Your task to perform on an android device: empty trash in google photos Image 0: 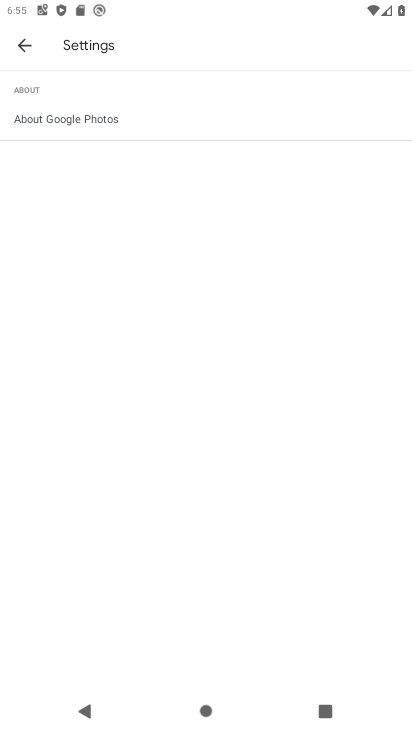
Step 0: press home button
Your task to perform on an android device: empty trash in google photos Image 1: 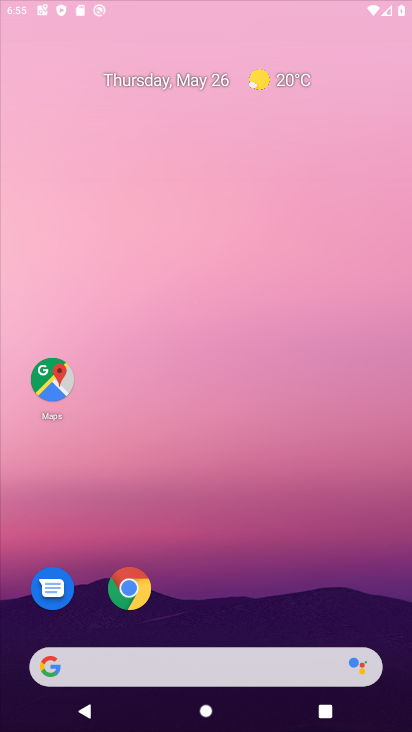
Step 1: drag from (381, 630) to (235, 64)
Your task to perform on an android device: empty trash in google photos Image 2: 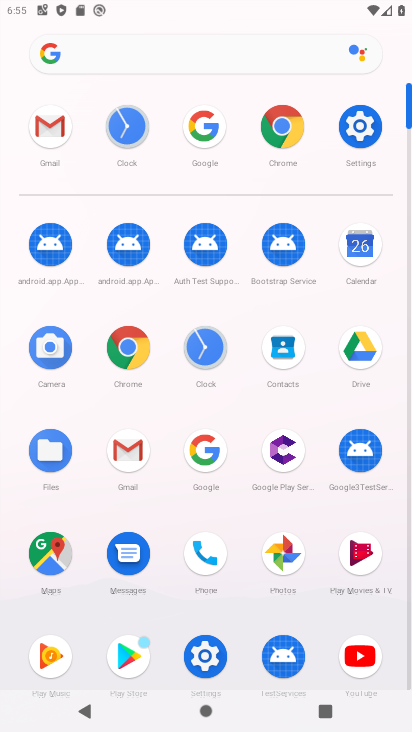
Step 2: click (278, 575)
Your task to perform on an android device: empty trash in google photos Image 3: 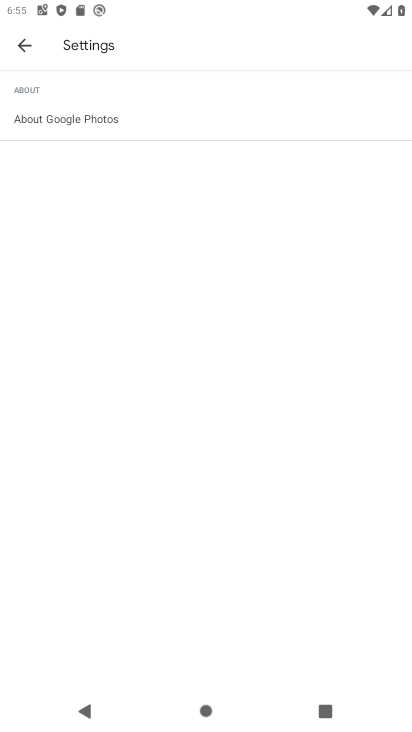
Step 3: press back button
Your task to perform on an android device: empty trash in google photos Image 4: 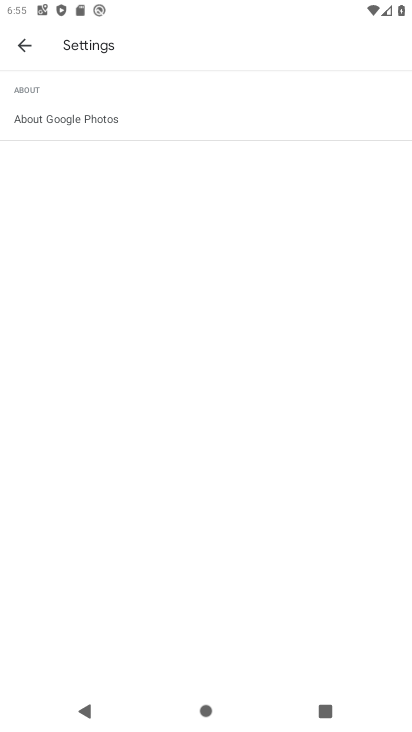
Step 4: press back button
Your task to perform on an android device: empty trash in google photos Image 5: 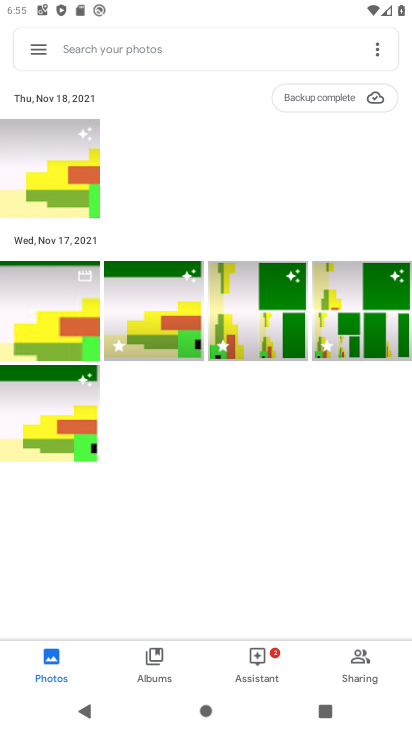
Step 5: click (37, 44)
Your task to perform on an android device: empty trash in google photos Image 6: 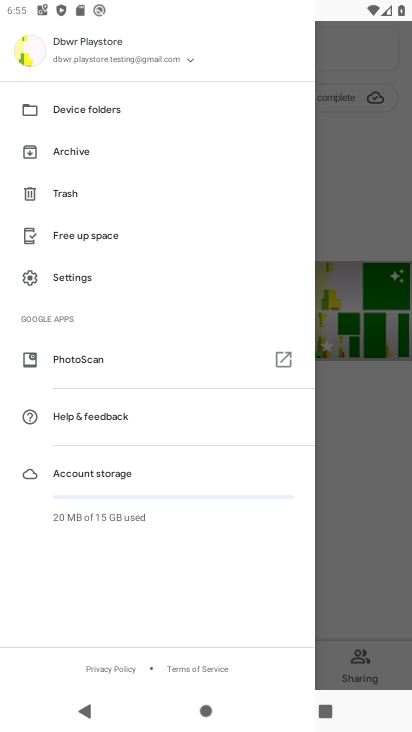
Step 6: click (87, 190)
Your task to perform on an android device: empty trash in google photos Image 7: 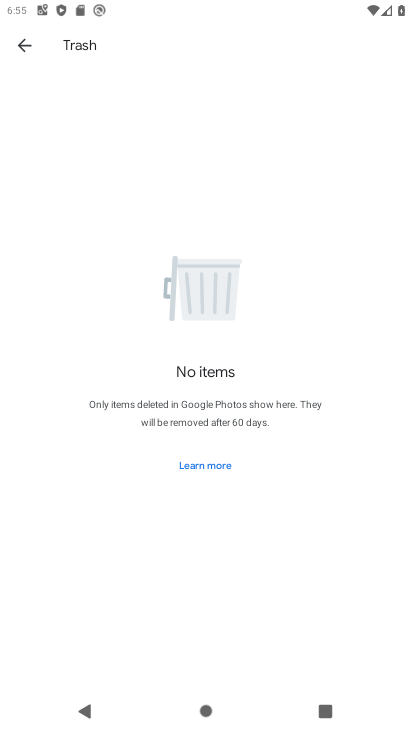
Step 7: task complete